Your task to perform on an android device: Go to Amazon Image 0: 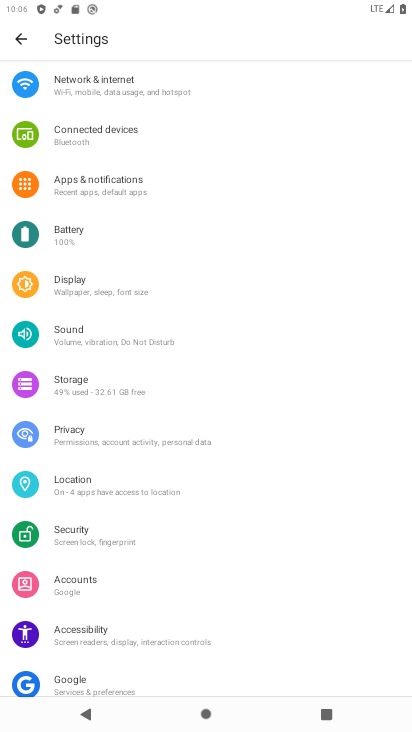
Step 0: press back button
Your task to perform on an android device: Go to Amazon Image 1: 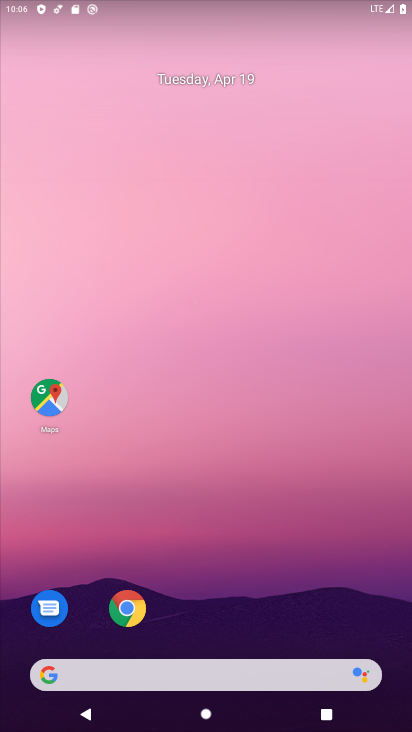
Step 1: click (123, 599)
Your task to perform on an android device: Go to Amazon Image 2: 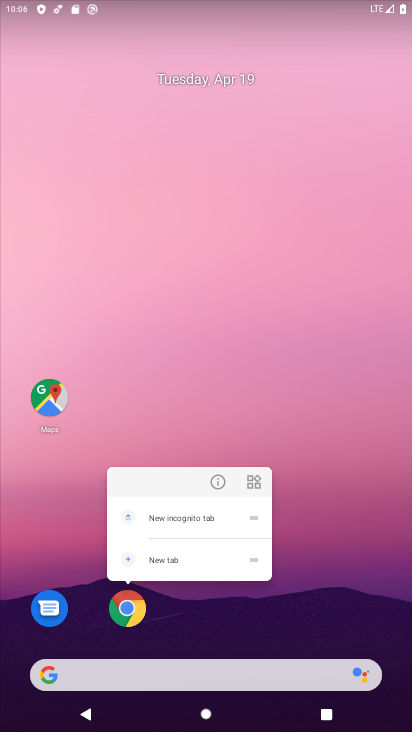
Step 2: click (123, 599)
Your task to perform on an android device: Go to Amazon Image 3: 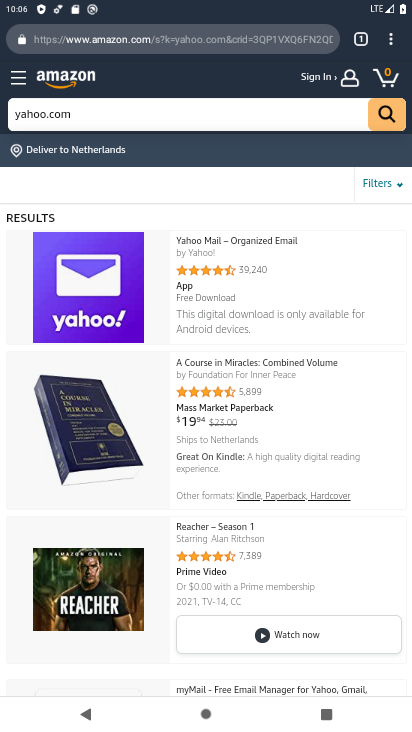
Step 3: click (355, 39)
Your task to perform on an android device: Go to Amazon Image 4: 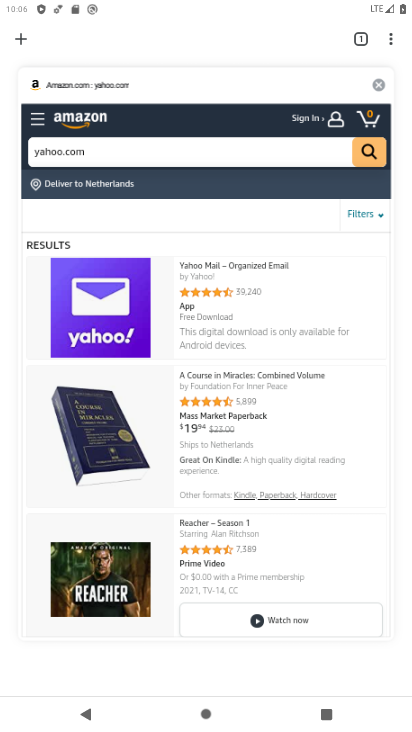
Step 4: click (376, 81)
Your task to perform on an android device: Go to Amazon Image 5: 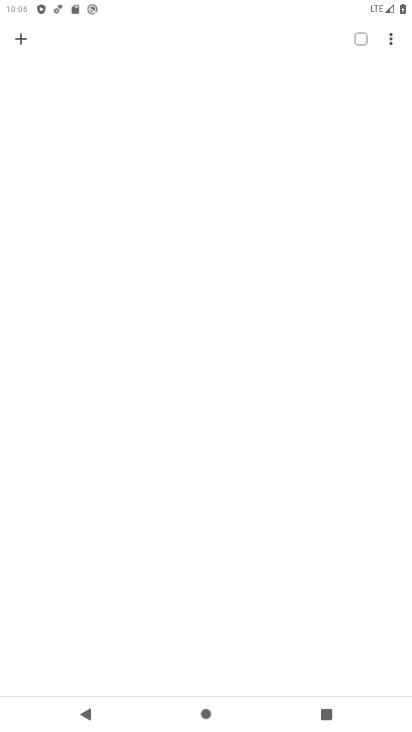
Step 5: click (387, 33)
Your task to perform on an android device: Go to Amazon Image 6: 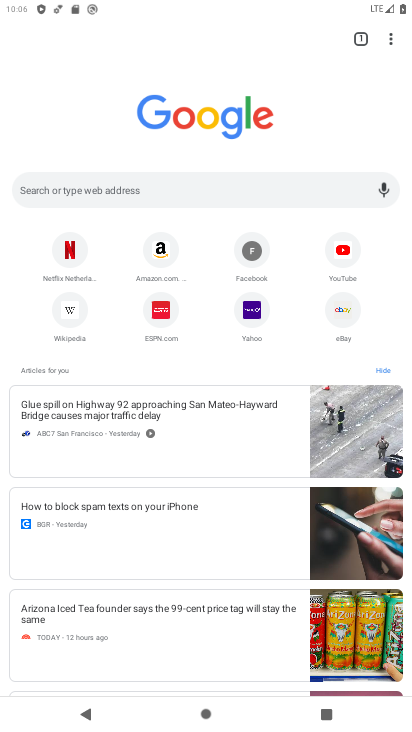
Step 6: click (151, 242)
Your task to perform on an android device: Go to Amazon Image 7: 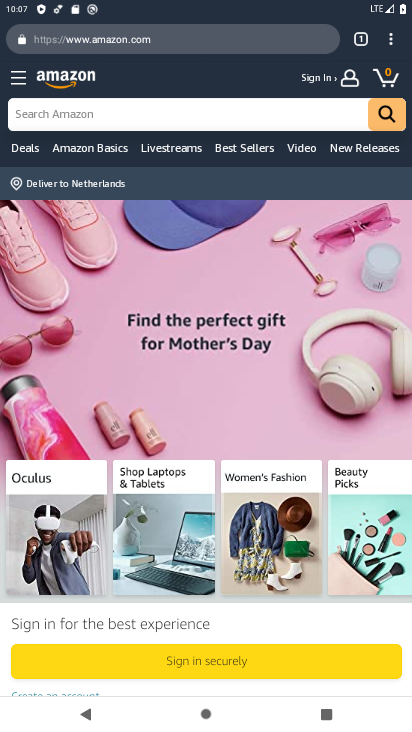
Step 7: task complete